Your task to perform on an android device: toggle airplane mode Image 0: 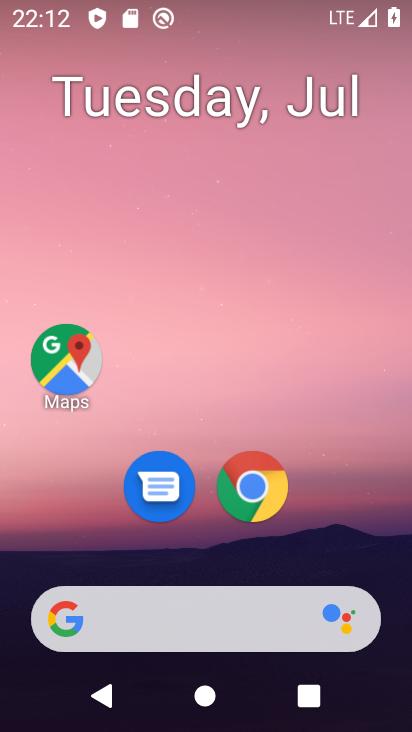
Step 0: drag from (367, 517) to (387, 168)
Your task to perform on an android device: toggle airplane mode Image 1: 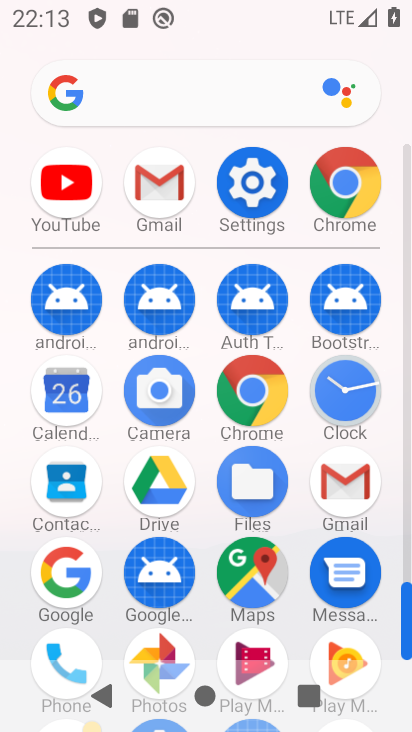
Step 1: click (250, 187)
Your task to perform on an android device: toggle airplane mode Image 2: 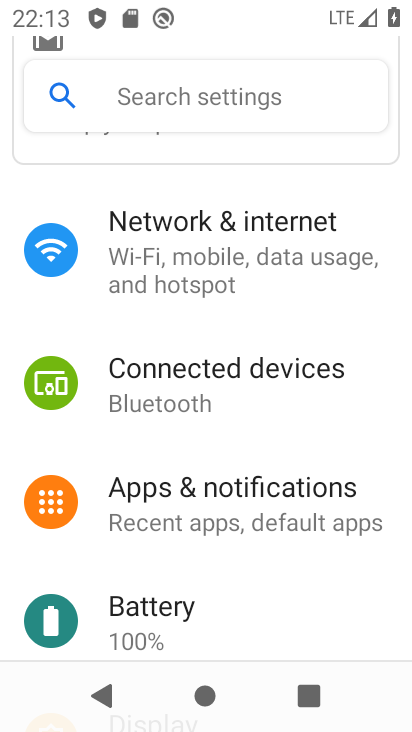
Step 2: drag from (368, 437) to (373, 363)
Your task to perform on an android device: toggle airplane mode Image 3: 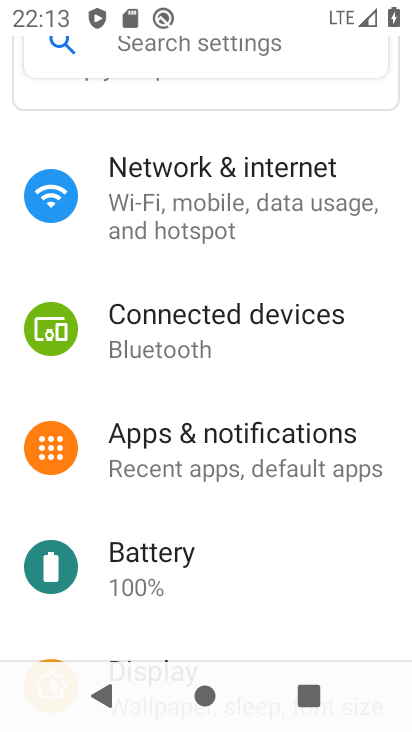
Step 3: drag from (367, 522) to (366, 412)
Your task to perform on an android device: toggle airplane mode Image 4: 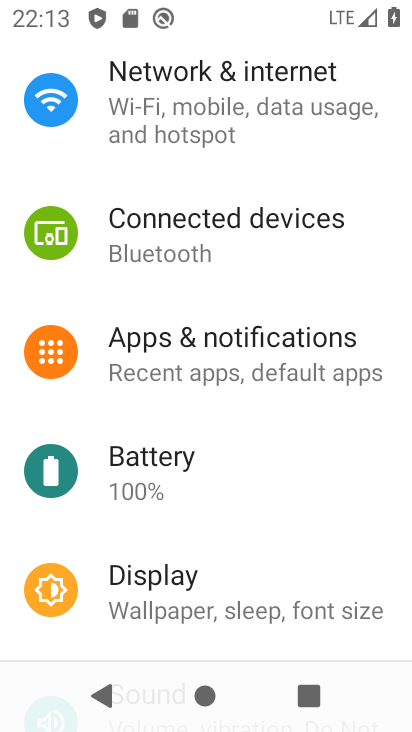
Step 4: drag from (346, 522) to (352, 424)
Your task to perform on an android device: toggle airplane mode Image 5: 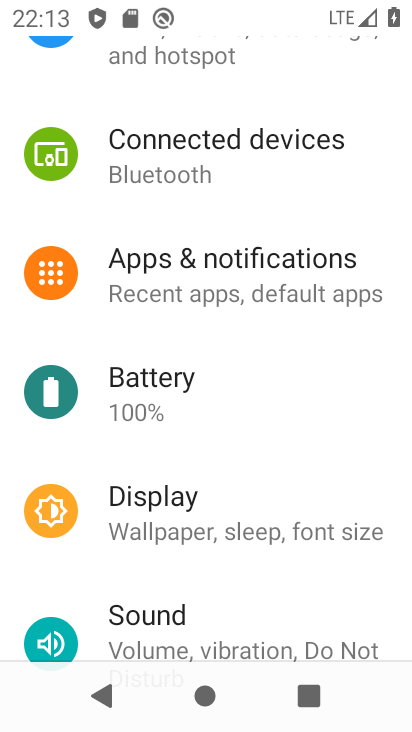
Step 5: drag from (331, 560) to (338, 435)
Your task to perform on an android device: toggle airplane mode Image 6: 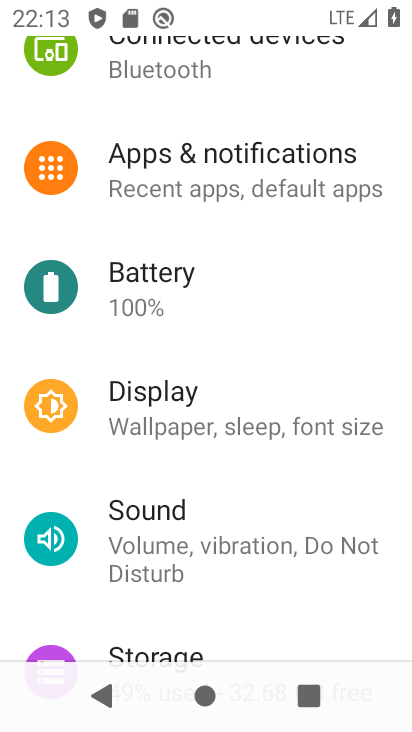
Step 6: drag from (326, 571) to (327, 476)
Your task to perform on an android device: toggle airplane mode Image 7: 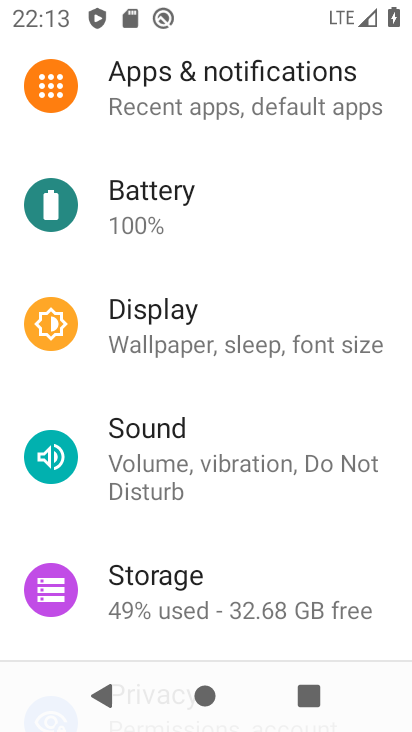
Step 7: drag from (325, 578) to (325, 473)
Your task to perform on an android device: toggle airplane mode Image 8: 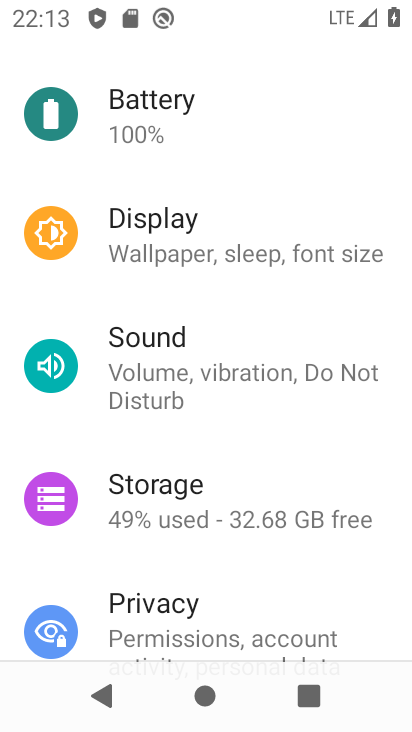
Step 8: drag from (324, 451) to (335, 325)
Your task to perform on an android device: toggle airplane mode Image 9: 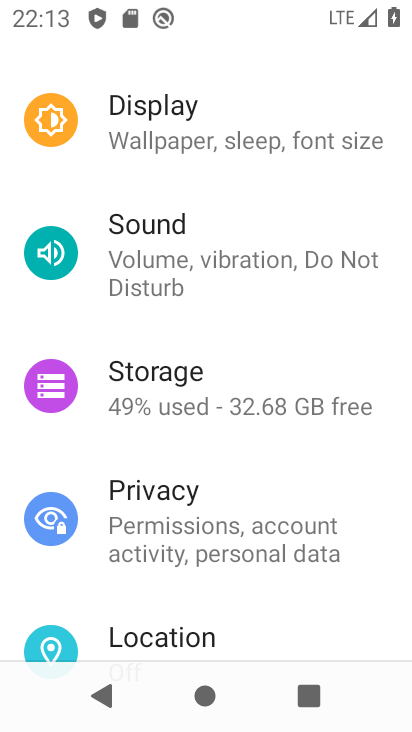
Step 9: drag from (367, 500) to (366, 391)
Your task to perform on an android device: toggle airplane mode Image 10: 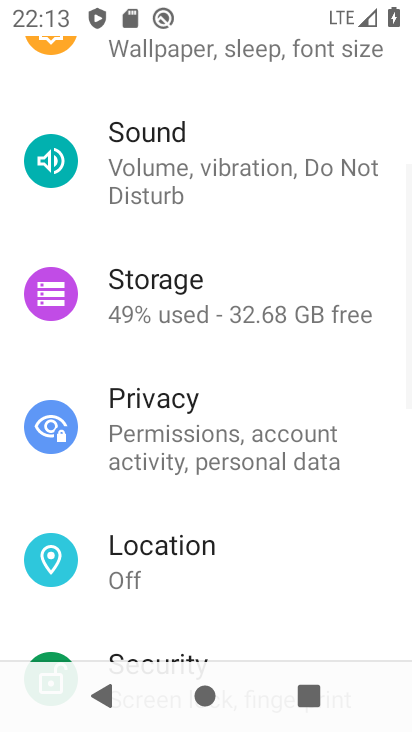
Step 10: drag from (345, 548) to (346, 410)
Your task to perform on an android device: toggle airplane mode Image 11: 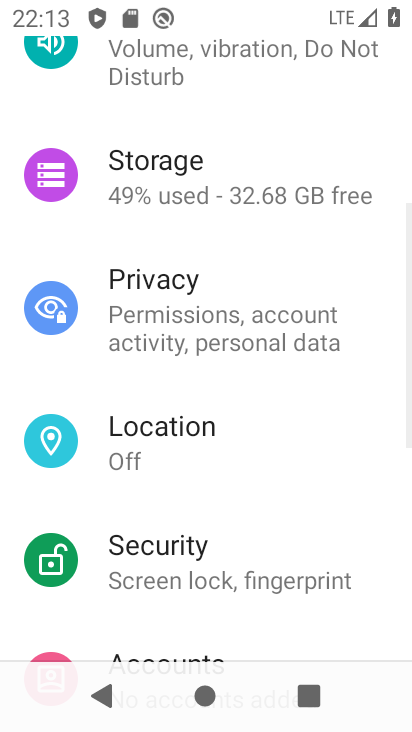
Step 11: drag from (344, 528) to (345, 407)
Your task to perform on an android device: toggle airplane mode Image 12: 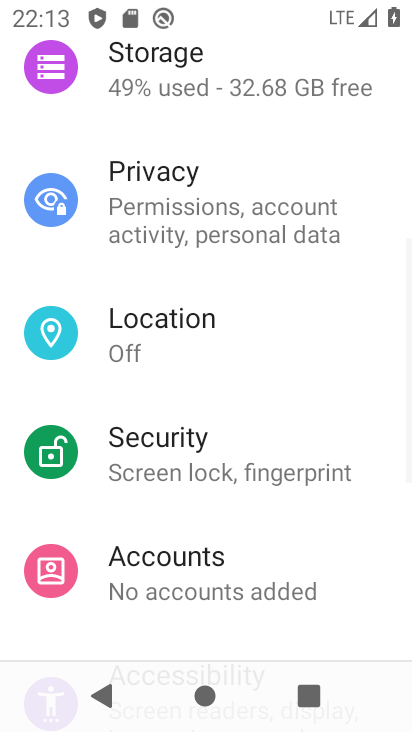
Step 12: drag from (348, 261) to (344, 413)
Your task to perform on an android device: toggle airplane mode Image 13: 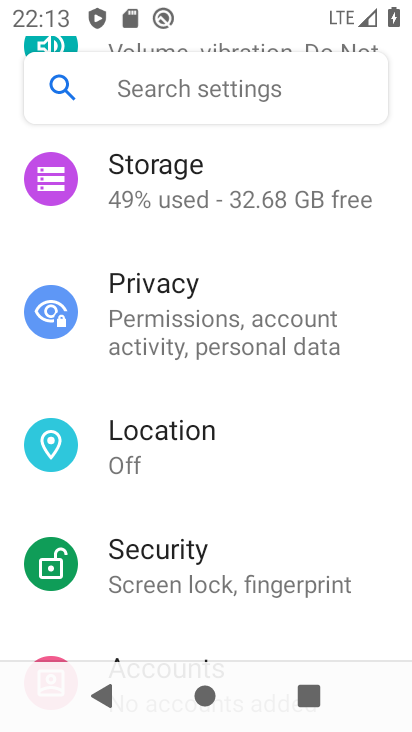
Step 13: drag from (369, 266) to (374, 373)
Your task to perform on an android device: toggle airplane mode Image 14: 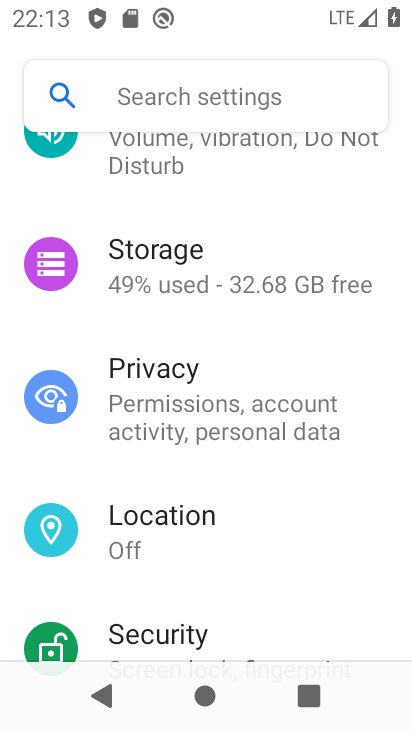
Step 14: drag from (374, 245) to (373, 402)
Your task to perform on an android device: toggle airplane mode Image 15: 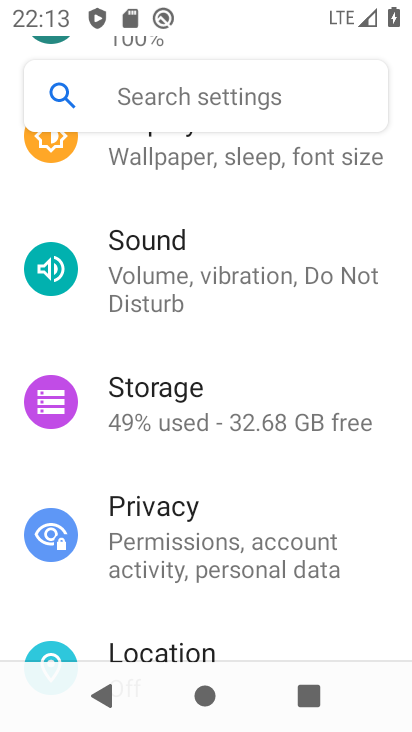
Step 15: drag from (379, 220) to (382, 392)
Your task to perform on an android device: toggle airplane mode Image 16: 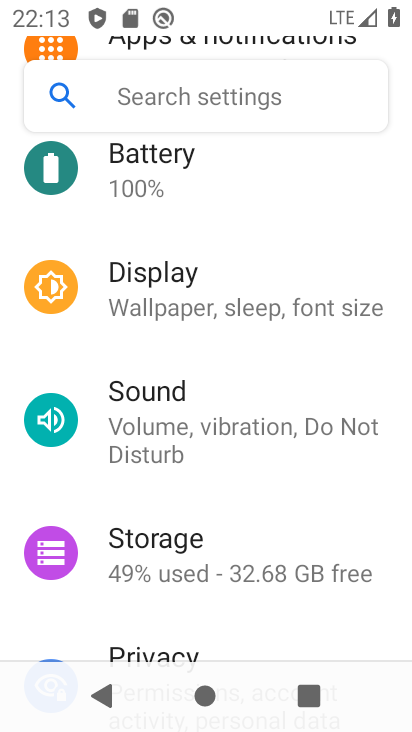
Step 16: drag from (376, 215) to (372, 409)
Your task to perform on an android device: toggle airplane mode Image 17: 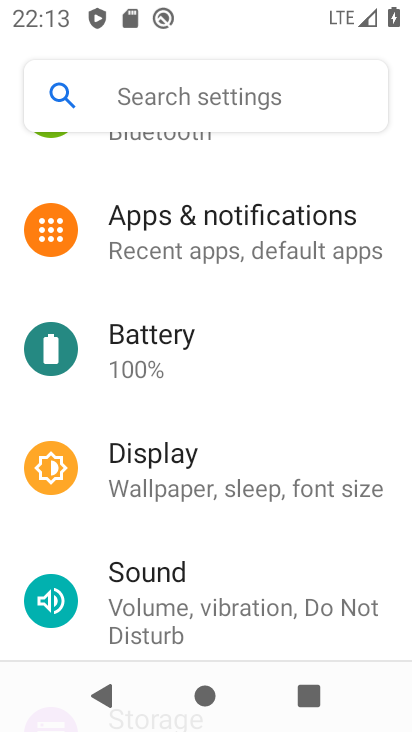
Step 17: drag from (381, 195) to (368, 498)
Your task to perform on an android device: toggle airplane mode Image 18: 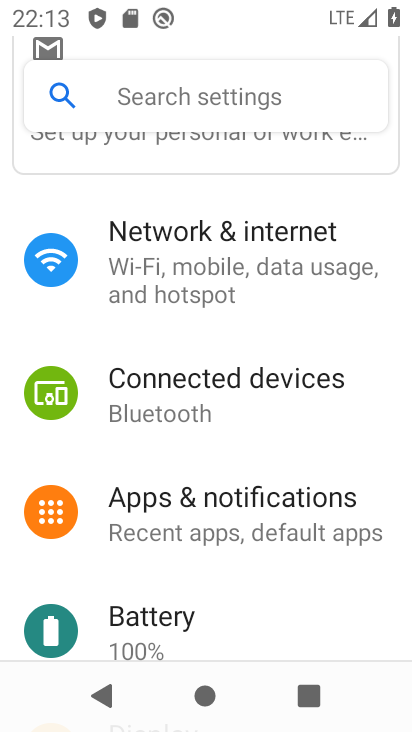
Step 18: click (336, 267)
Your task to perform on an android device: toggle airplane mode Image 19: 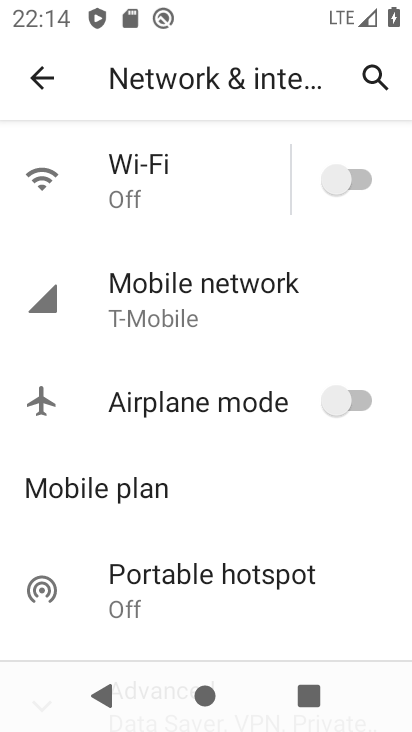
Step 19: click (332, 401)
Your task to perform on an android device: toggle airplane mode Image 20: 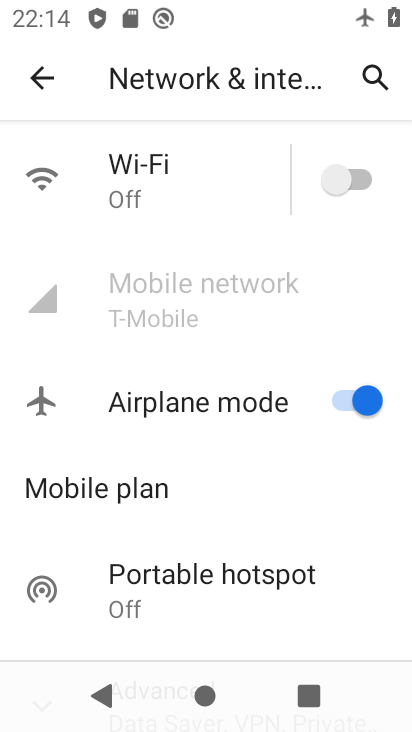
Step 20: task complete